Your task to perform on an android device: move a message to another label in the gmail app Image 0: 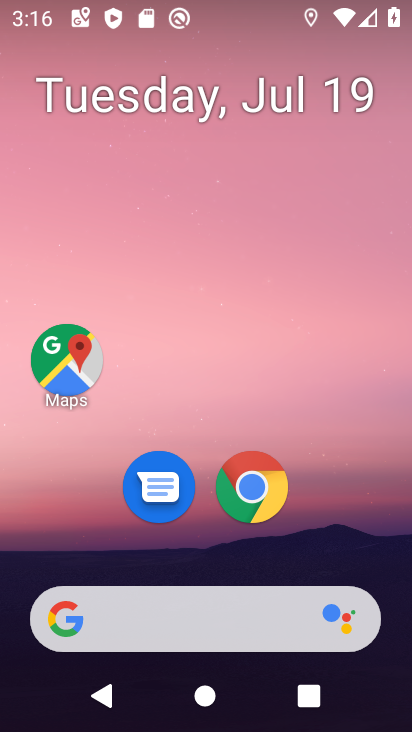
Step 0: drag from (103, 522) to (239, 32)
Your task to perform on an android device: move a message to another label in the gmail app Image 1: 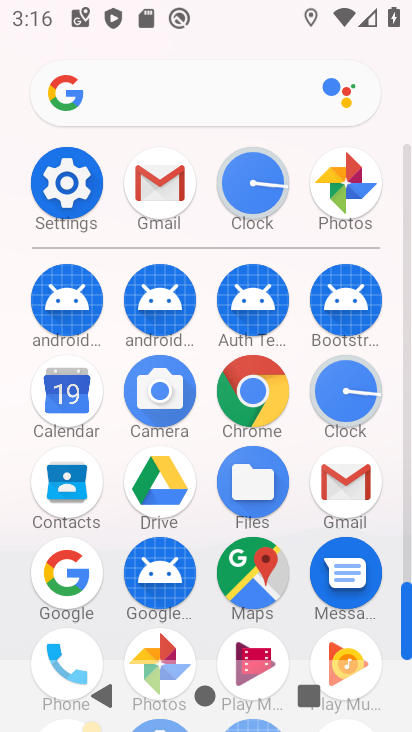
Step 1: click (151, 180)
Your task to perform on an android device: move a message to another label in the gmail app Image 2: 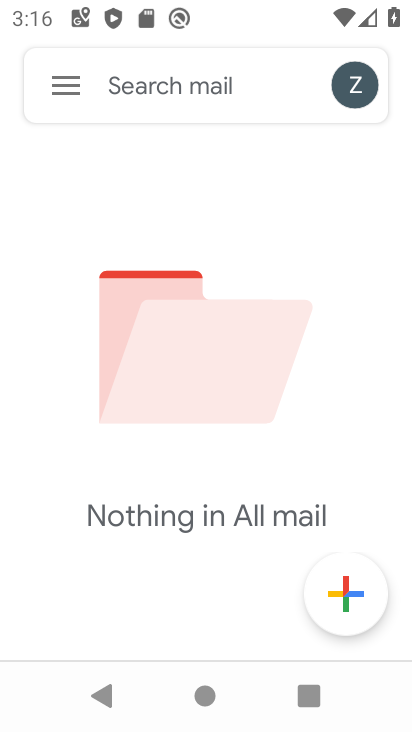
Step 2: click (54, 68)
Your task to perform on an android device: move a message to another label in the gmail app Image 3: 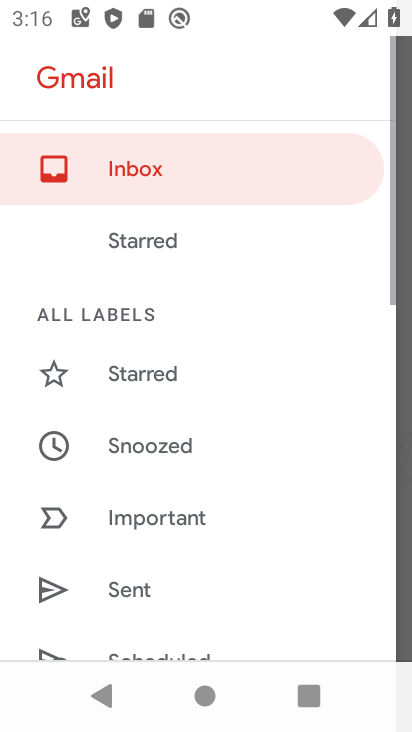
Step 3: drag from (180, 577) to (274, 83)
Your task to perform on an android device: move a message to another label in the gmail app Image 4: 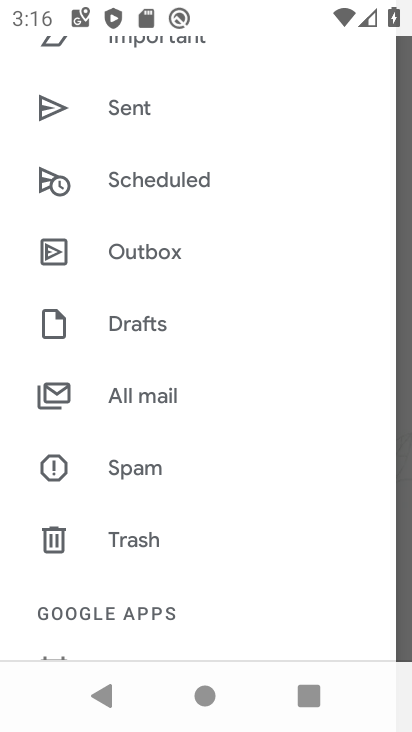
Step 4: click (138, 395)
Your task to perform on an android device: move a message to another label in the gmail app Image 5: 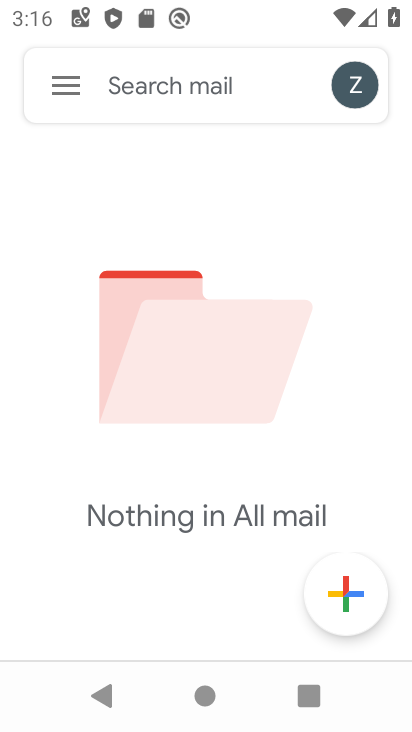
Step 5: task complete